Your task to perform on an android device: turn off notifications in google photos Image 0: 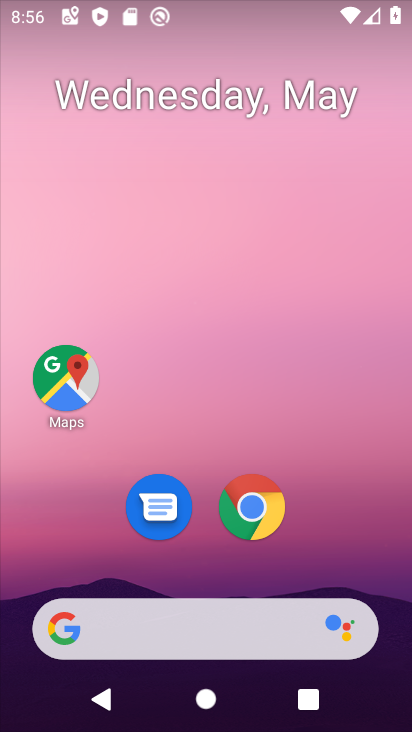
Step 0: drag from (407, 566) to (247, 94)
Your task to perform on an android device: turn off notifications in google photos Image 1: 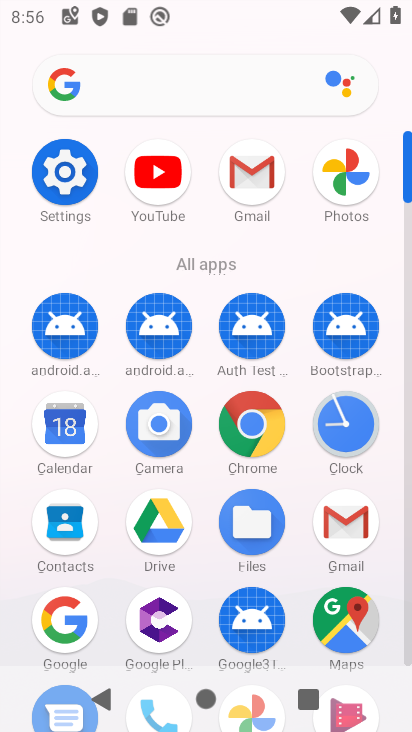
Step 1: click (346, 153)
Your task to perform on an android device: turn off notifications in google photos Image 2: 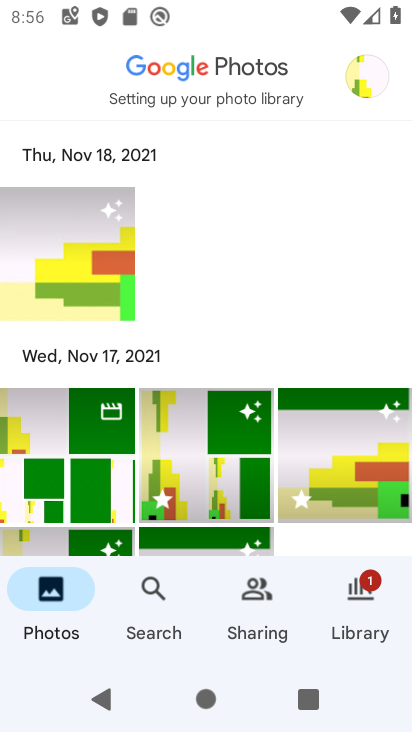
Step 2: click (360, 82)
Your task to perform on an android device: turn off notifications in google photos Image 3: 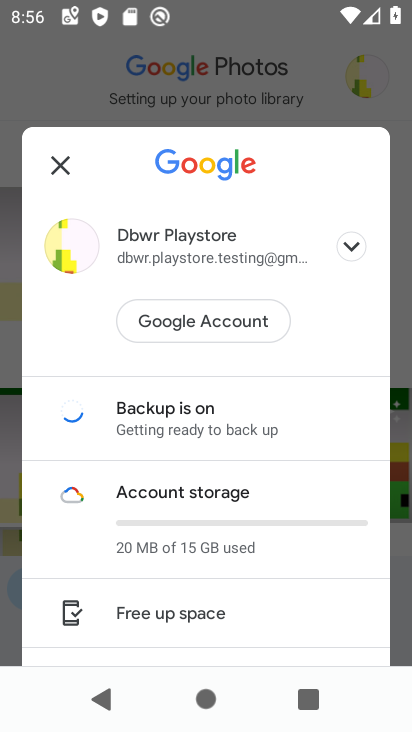
Step 3: drag from (277, 594) to (225, 201)
Your task to perform on an android device: turn off notifications in google photos Image 4: 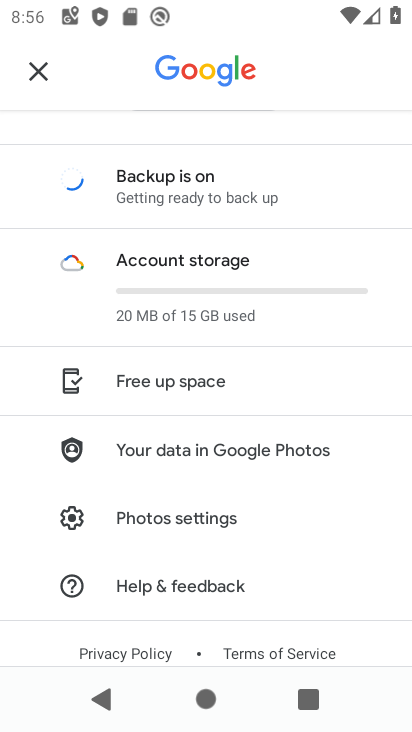
Step 4: click (261, 524)
Your task to perform on an android device: turn off notifications in google photos Image 5: 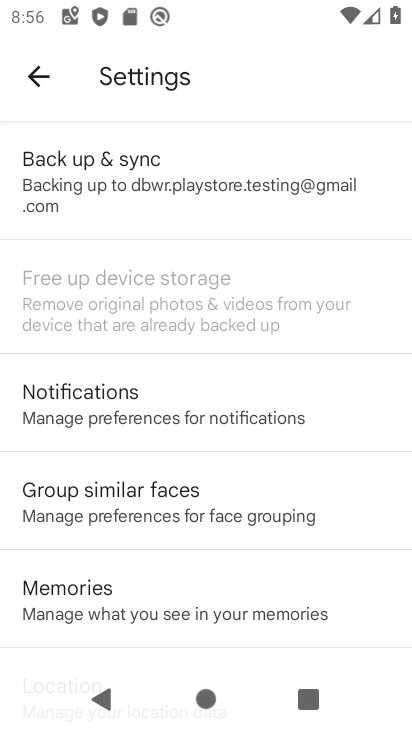
Step 5: click (218, 415)
Your task to perform on an android device: turn off notifications in google photos Image 6: 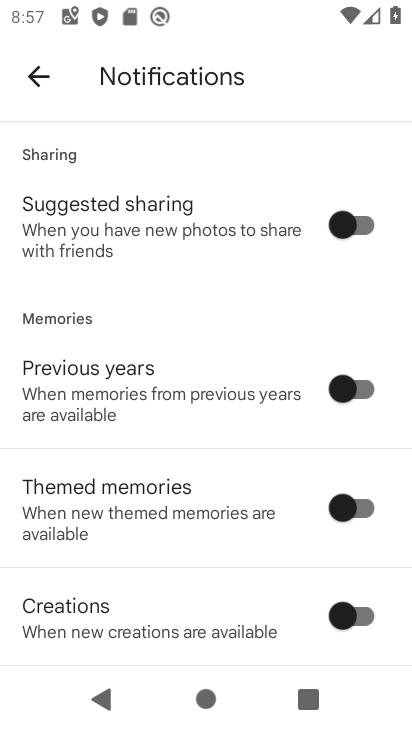
Step 6: drag from (231, 589) to (203, 237)
Your task to perform on an android device: turn off notifications in google photos Image 7: 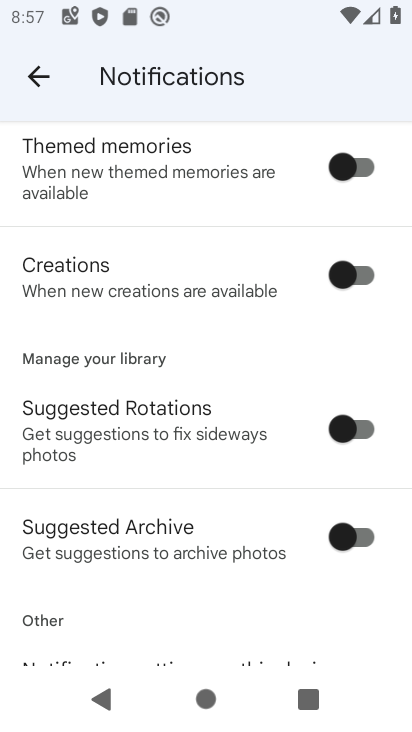
Step 7: drag from (203, 237) to (230, 619)
Your task to perform on an android device: turn off notifications in google photos Image 8: 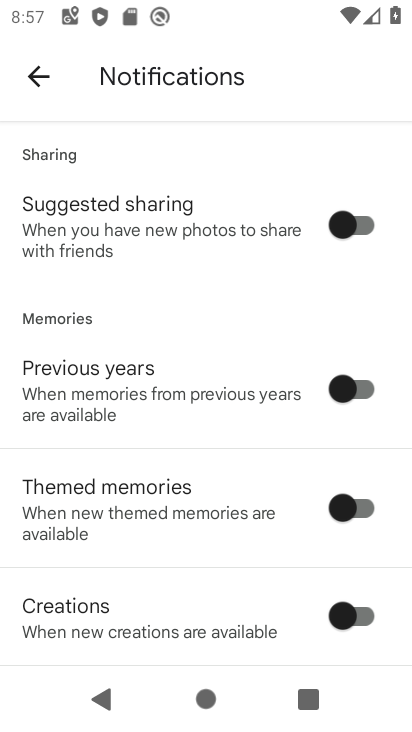
Step 8: drag from (223, 601) to (130, 52)
Your task to perform on an android device: turn off notifications in google photos Image 9: 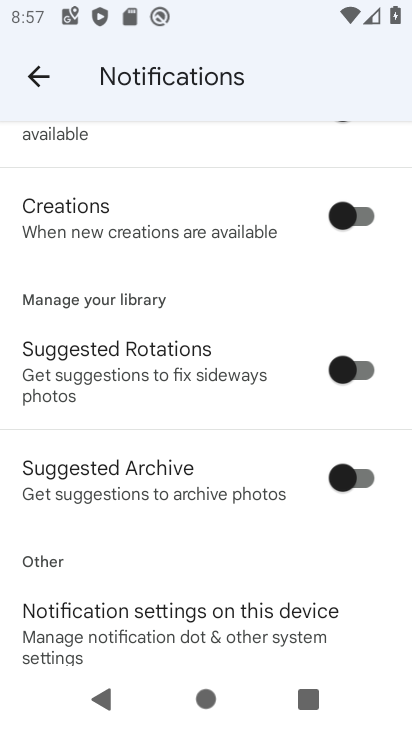
Step 9: click (234, 642)
Your task to perform on an android device: turn off notifications in google photos Image 10: 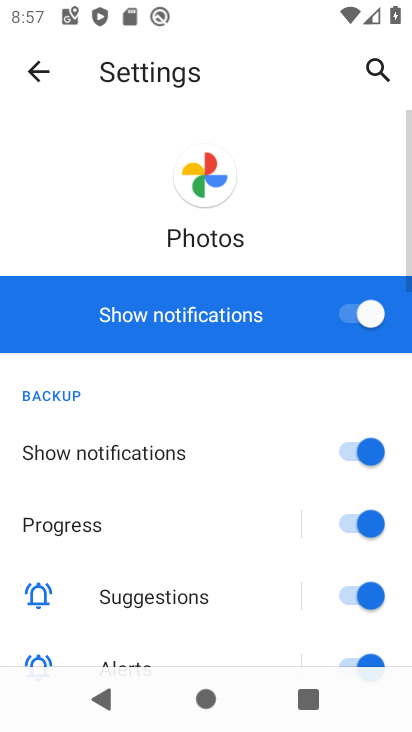
Step 10: click (367, 304)
Your task to perform on an android device: turn off notifications in google photos Image 11: 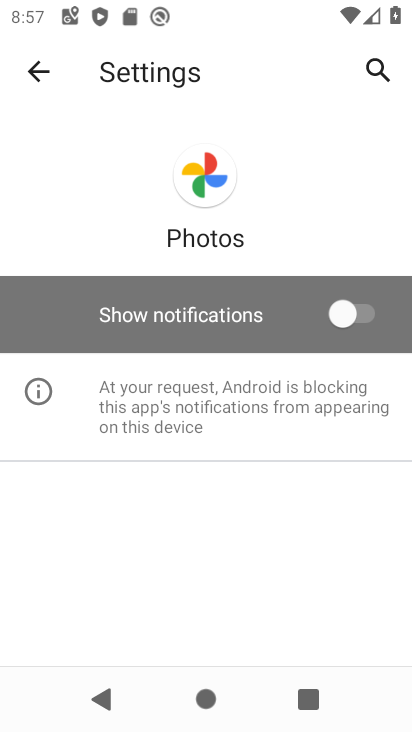
Step 11: task complete